Your task to perform on an android device: open a bookmark in the chrome app Image 0: 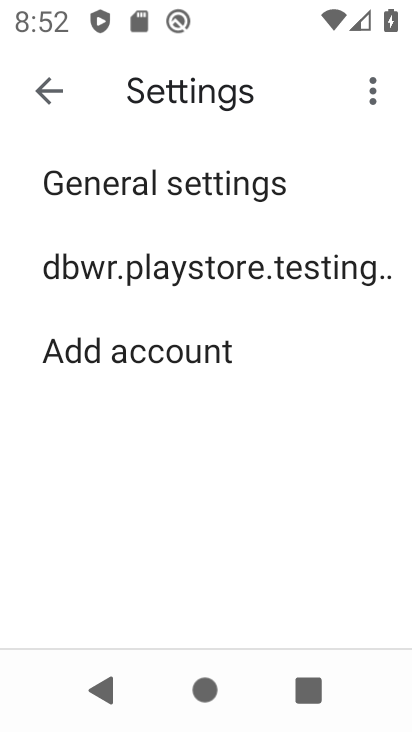
Step 0: press home button
Your task to perform on an android device: open a bookmark in the chrome app Image 1: 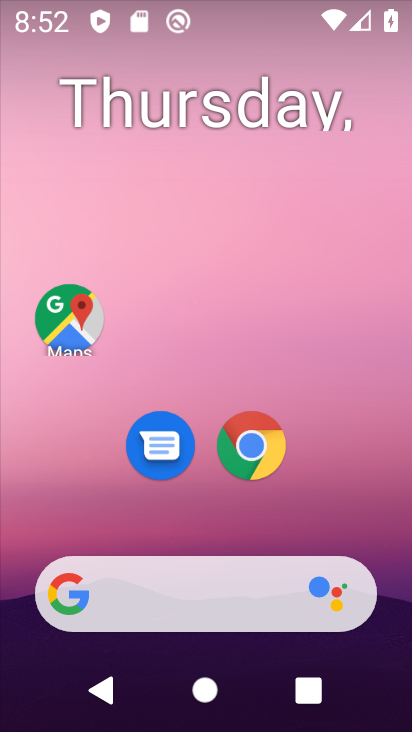
Step 1: click (256, 440)
Your task to perform on an android device: open a bookmark in the chrome app Image 2: 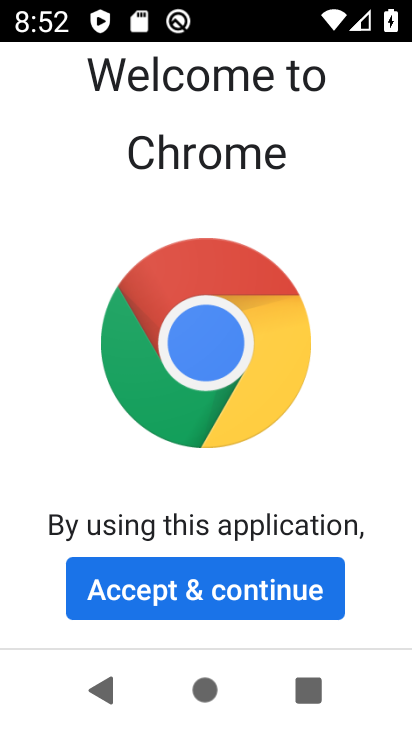
Step 2: click (171, 585)
Your task to perform on an android device: open a bookmark in the chrome app Image 3: 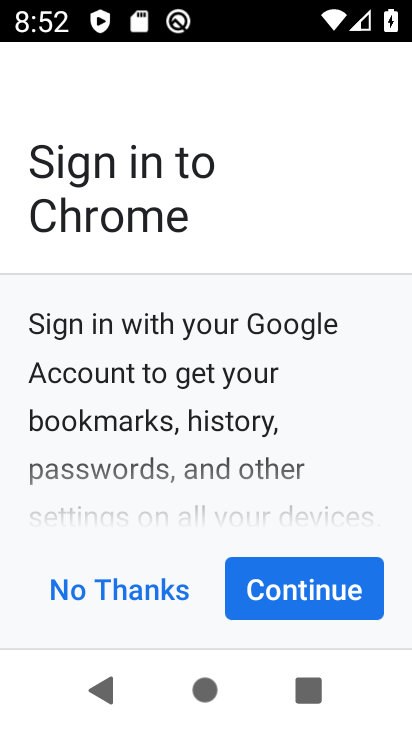
Step 3: click (146, 589)
Your task to perform on an android device: open a bookmark in the chrome app Image 4: 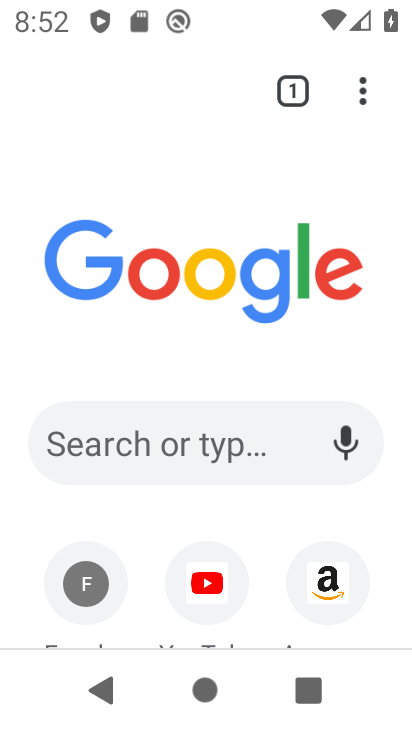
Step 4: click (370, 95)
Your task to perform on an android device: open a bookmark in the chrome app Image 5: 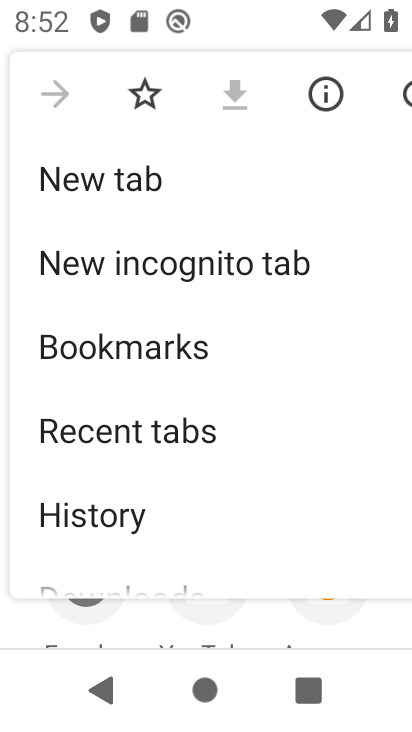
Step 5: click (108, 341)
Your task to perform on an android device: open a bookmark in the chrome app Image 6: 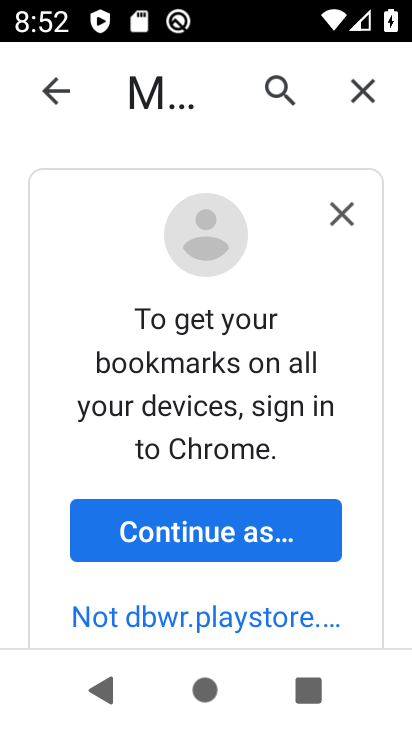
Step 6: click (339, 208)
Your task to perform on an android device: open a bookmark in the chrome app Image 7: 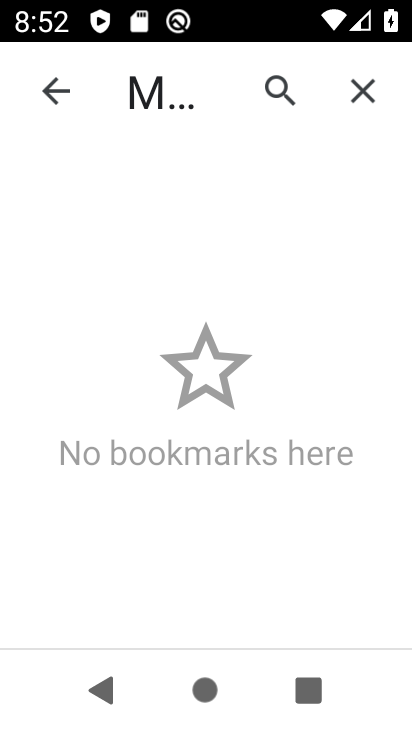
Step 7: task complete